Your task to perform on an android device: Open ESPN.com Image 0: 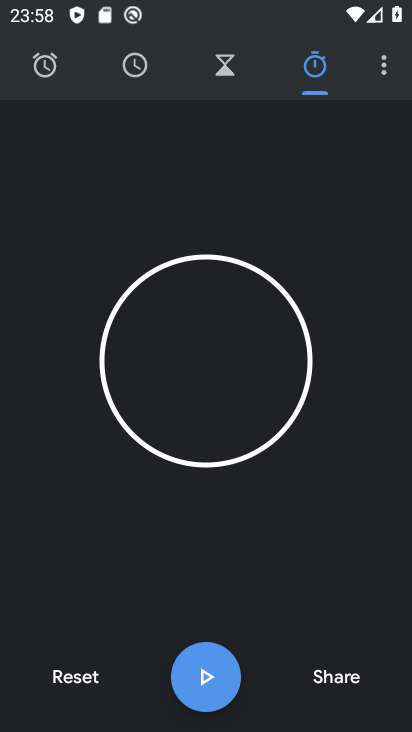
Step 0: press home button
Your task to perform on an android device: Open ESPN.com Image 1: 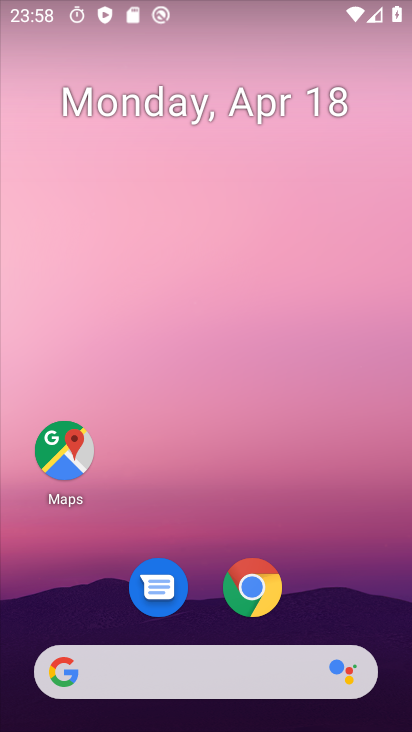
Step 1: click (246, 588)
Your task to perform on an android device: Open ESPN.com Image 2: 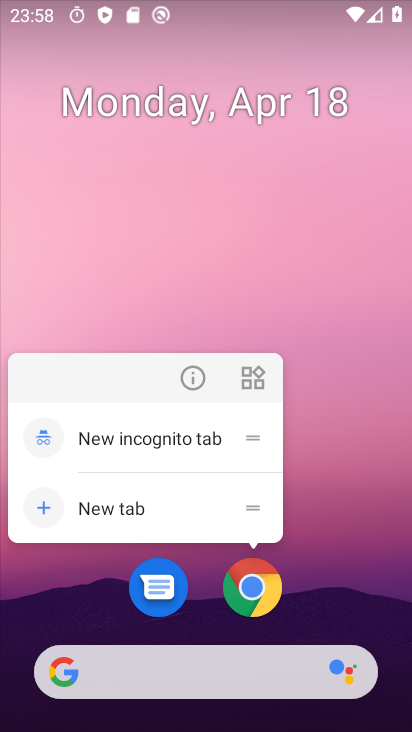
Step 2: click (274, 592)
Your task to perform on an android device: Open ESPN.com Image 3: 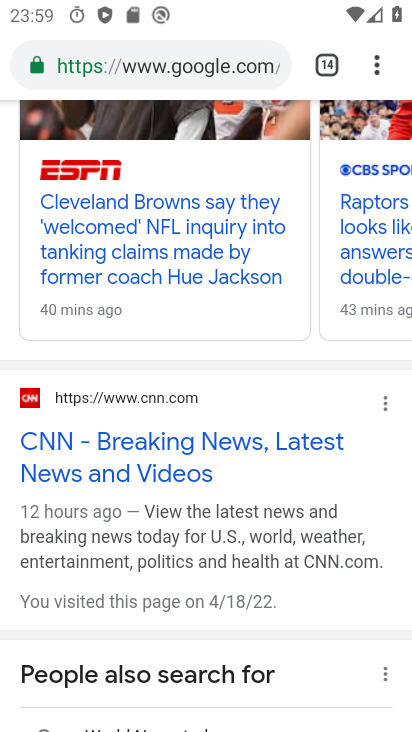
Step 3: click (329, 60)
Your task to perform on an android device: Open ESPN.com Image 4: 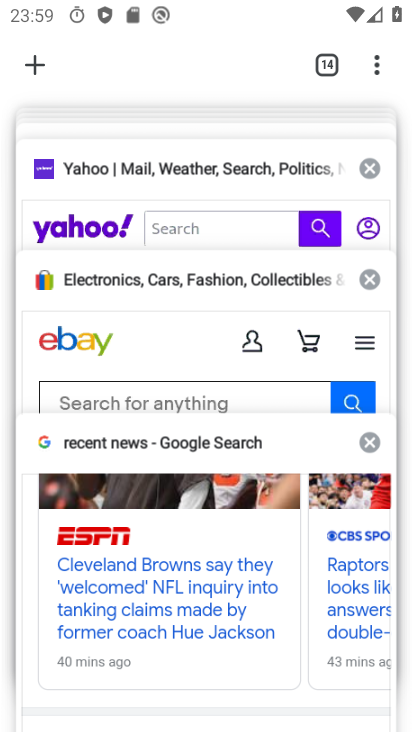
Step 4: click (38, 62)
Your task to perform on an android device: Open ESPN.com Image 5: 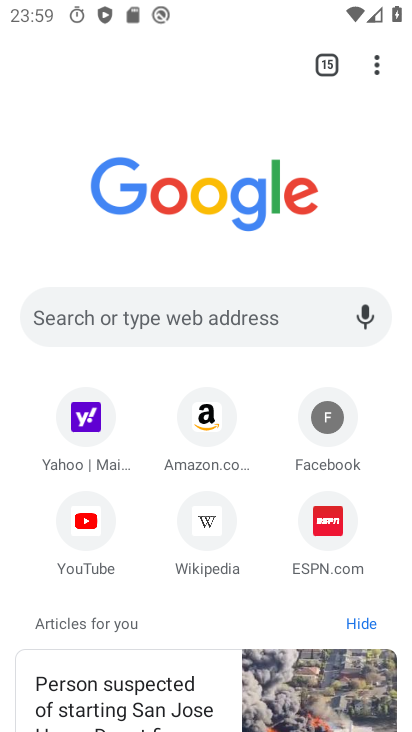
Step 5: click (191, 321)
Your task to perform on an android device: Open ESPN.com Image 6: 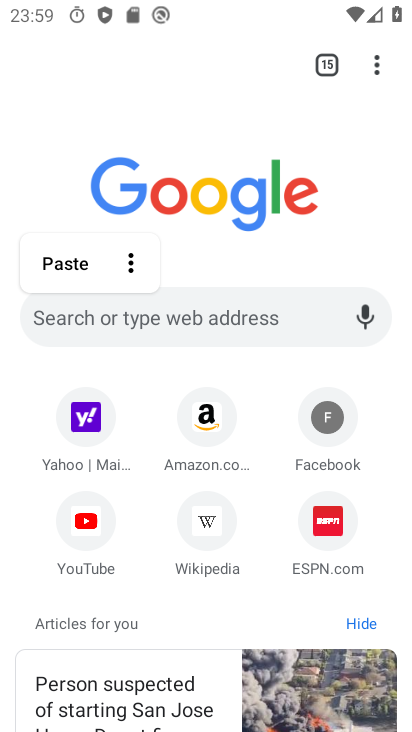
Step 6: type "espn.com"
Your task to perform on an android device: Open ESPN.com Image 7: 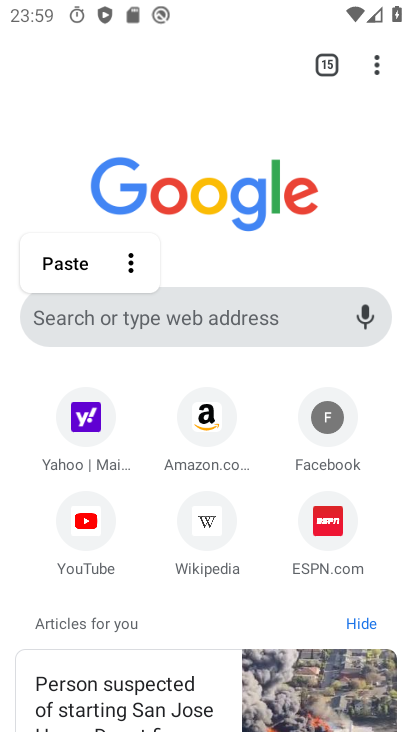
Step 7: click (232, 310)
Your task to perform on an android device: Open ESPN.com Image 8: 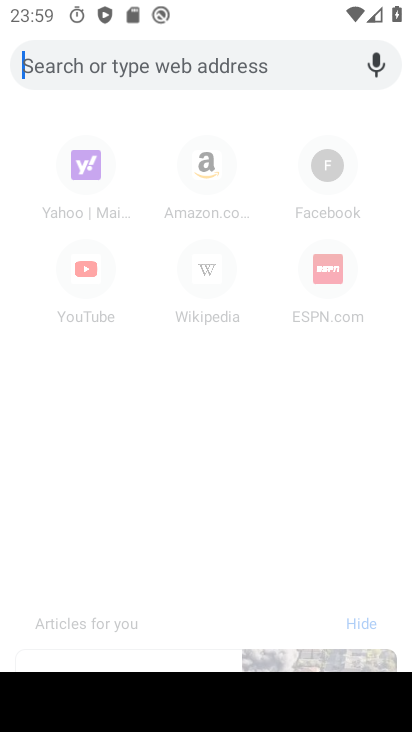
Step 8: type "espn.com"
Your task to perform on an android device: Open ESPN.com Image 9: 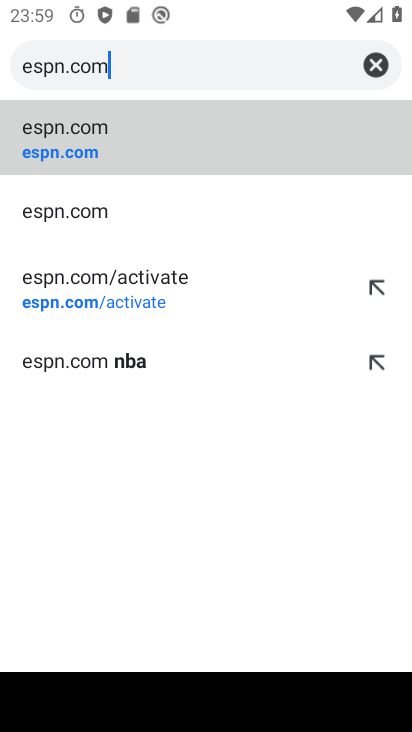
Step 9: click (70, 148)
Your task to perform on an android device: Open ESPN.com Image 10: 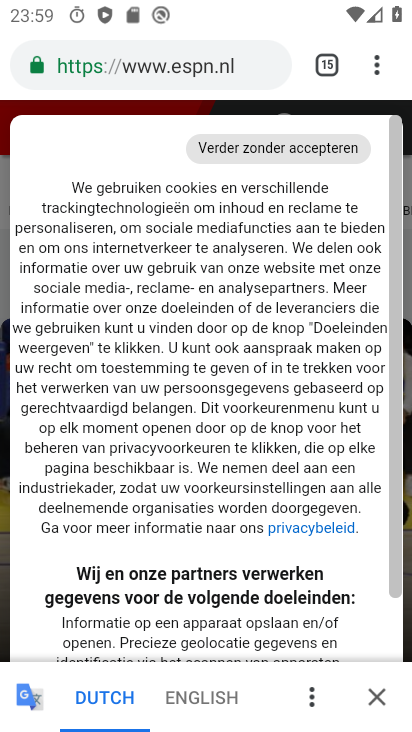
Step 10: task complete